Your task to perform on an android device: Set the phone to "Do not disturb". Image 0: 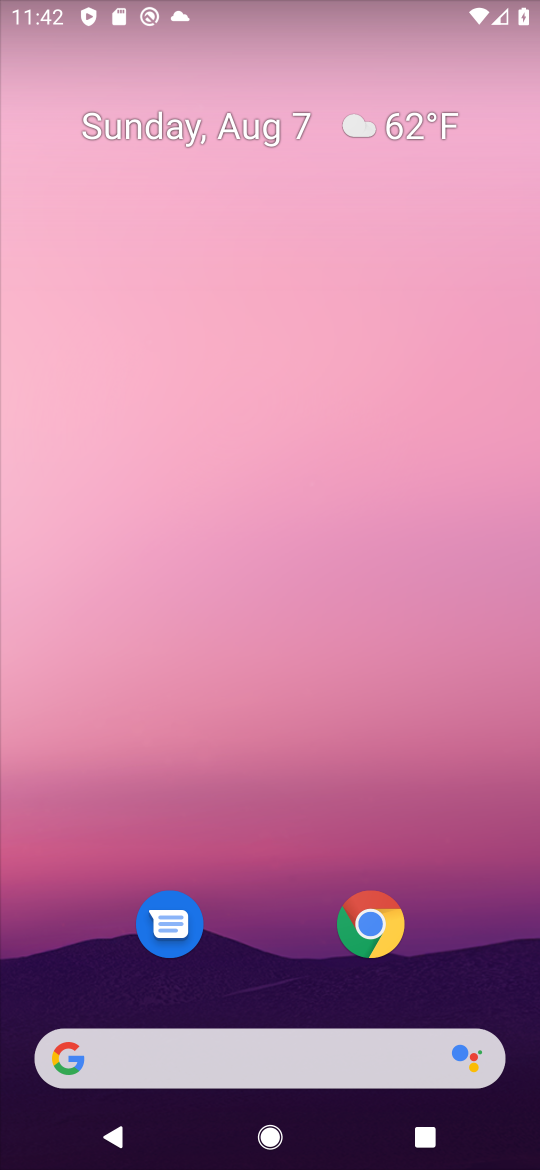
Step 0: drag from (266, 1027) to (237, 313)
Your task to perform on an android device: Set the phone to "Do not disturb". Image 1: 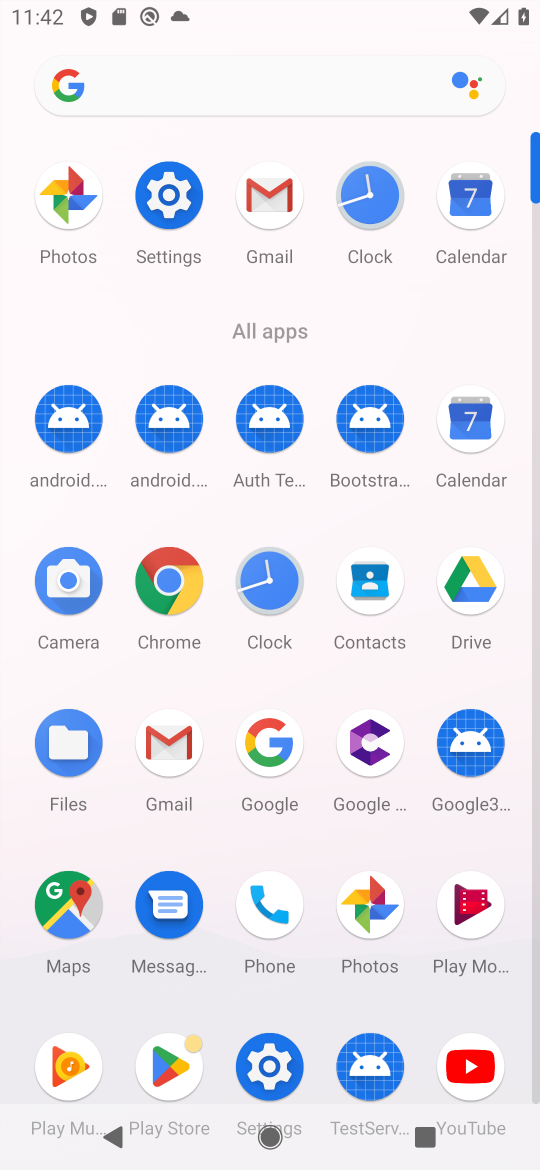
Step 1: click (164, 203)
Your task to perform on an android device: Set the phone to "Do not disturb". Image 2: 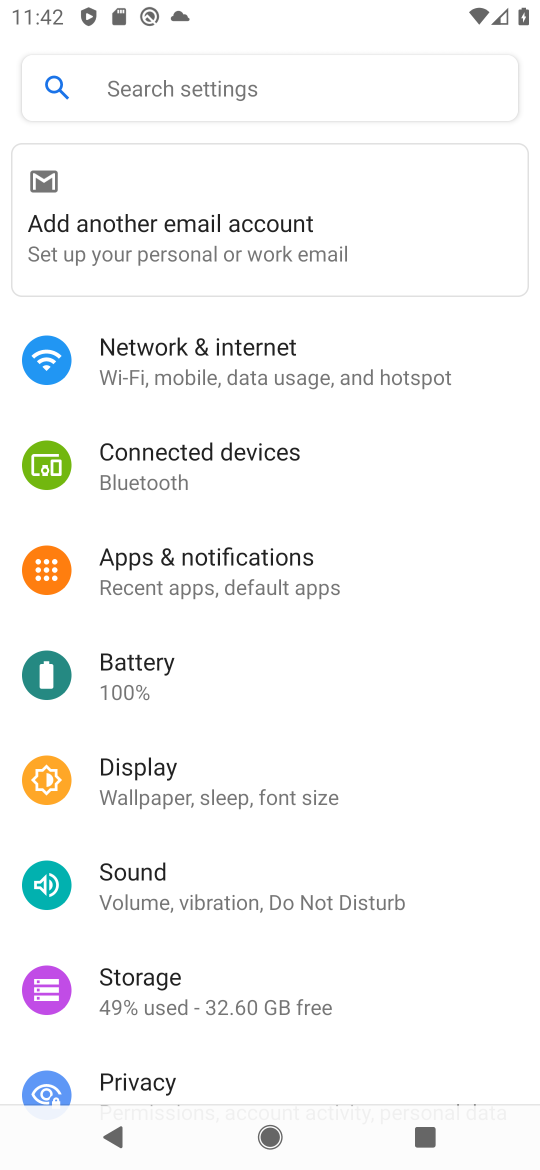
Step 2: click (255, 902)
Your task to perform on an android device: Set the phone to "Do not disturb". Image 3: 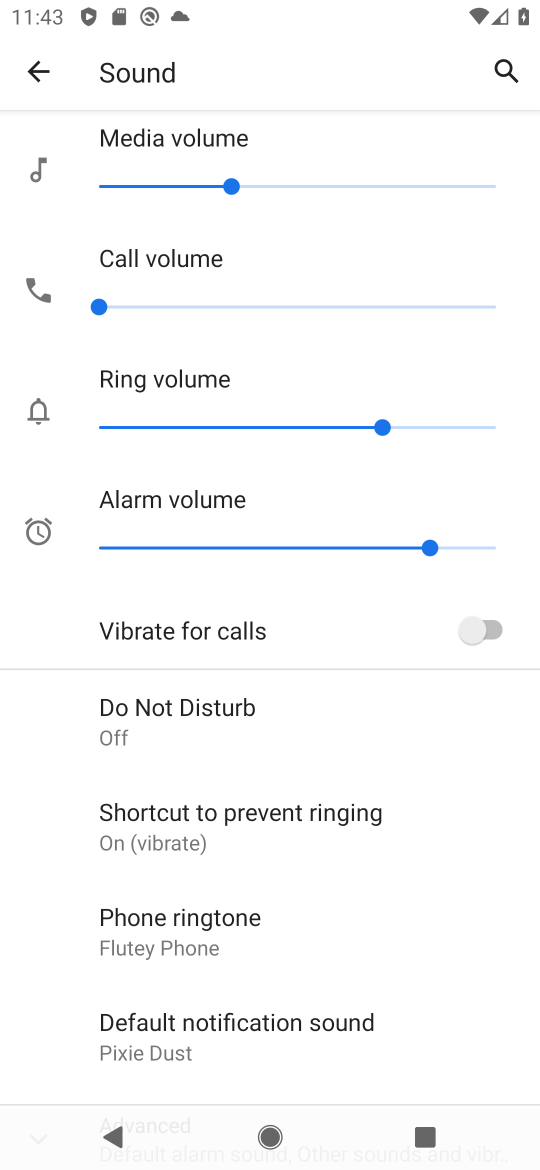
Step 3: click (163, 733)
Your task to perform on an android device: Set the phone to "Do not disturb". Image 4: 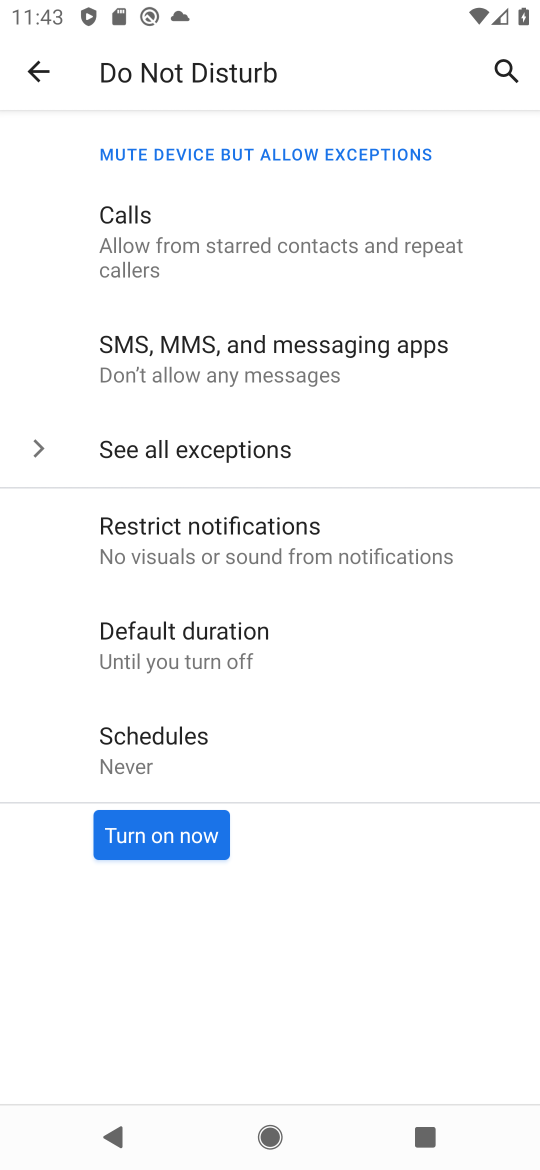
Step 4: click (177, 846)
Your task to perform on an android device: Set the phone to "Do not disturb". Image 5: 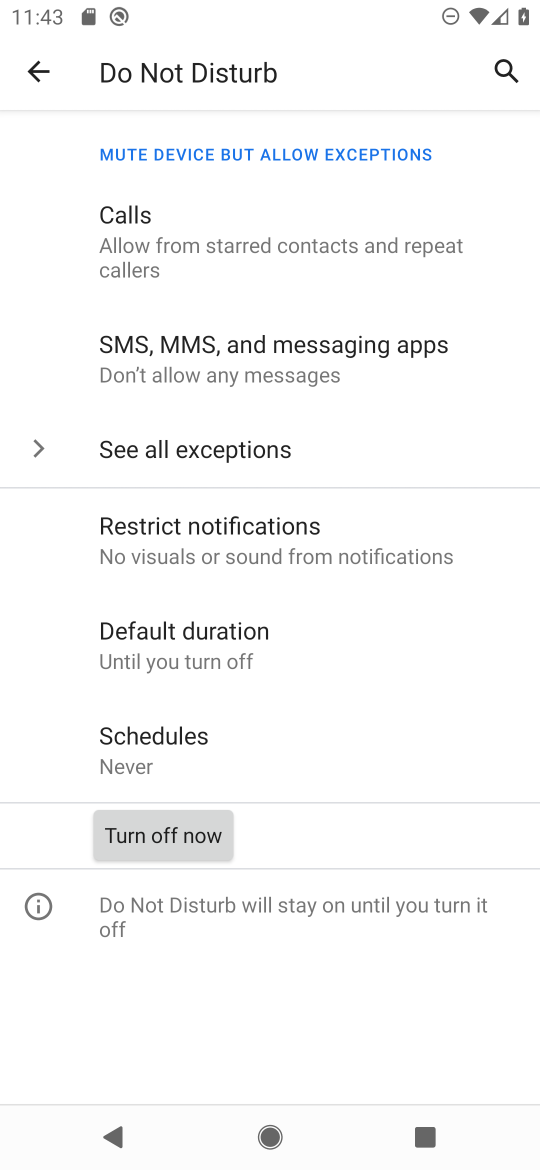
Step 5: task complete